Your task to perform on an android device: change the clock style Image 0: 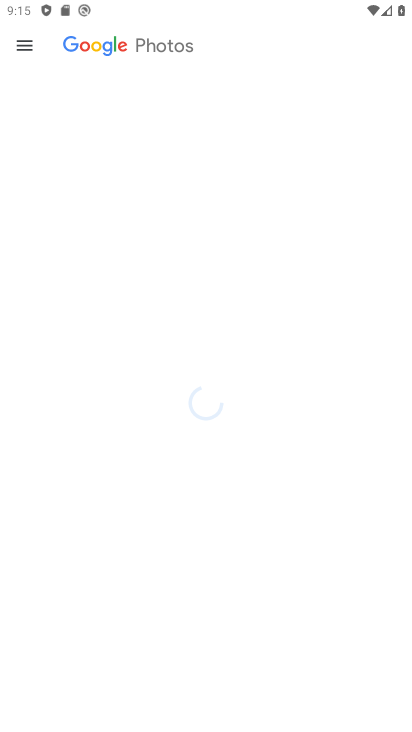
Step 0: press home button
Your task to perform on an android device: change the clock style Image 1: 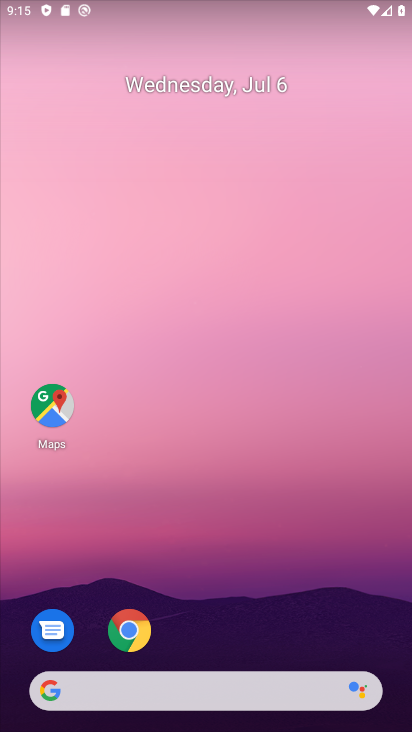
Step 1: drag from (195, 681) to (234, 286)
Your task to perform on an android device: change the clock style Image 2: 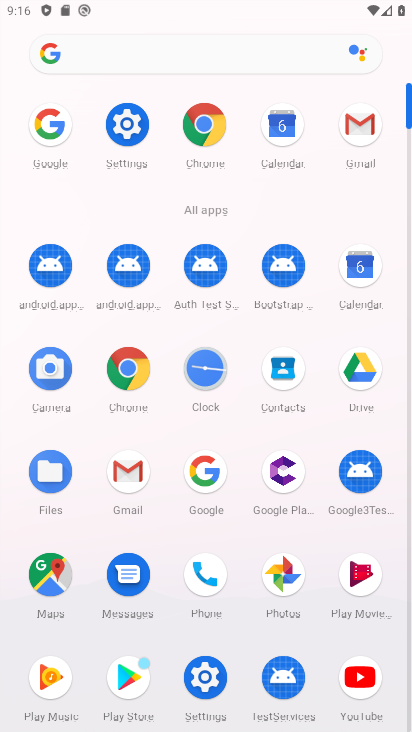
Step 2: click (184, 375)
Your task to perform on an android device: change the clock style Image 3: 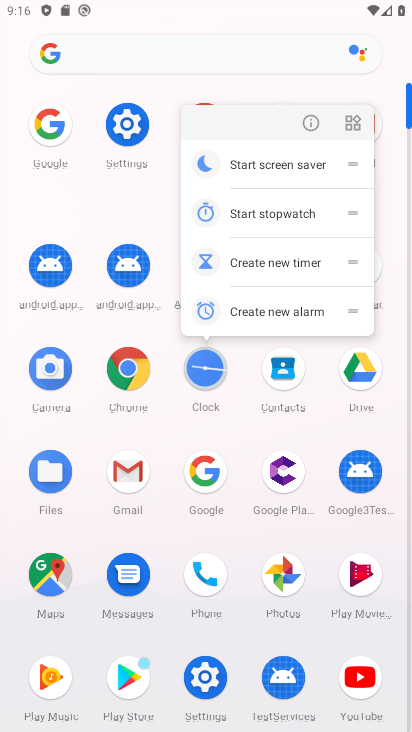
Step 3: click (194, 374)
Your task to perform on an android device: change the clock style Image 4: 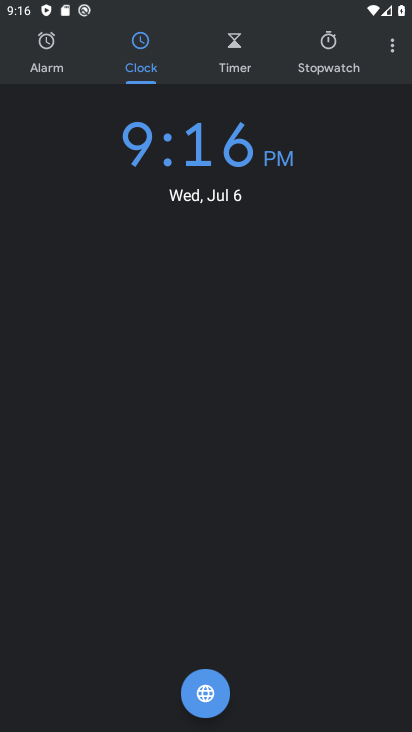
Step 4: click (399, 45)
Your task to perform on an android device: change the clock style Image 5: 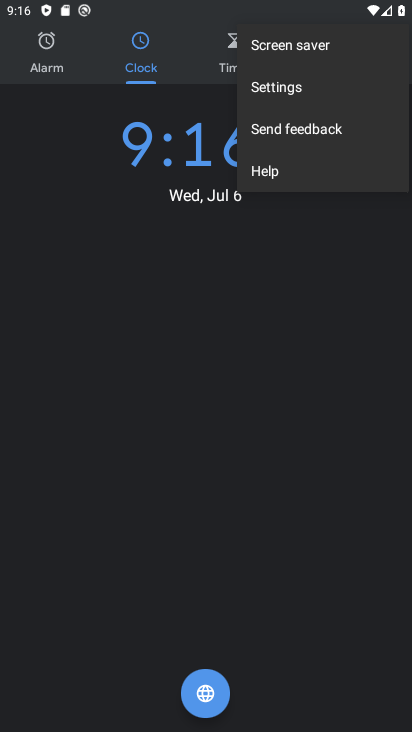
Step 5: click (304, 93)
Your task to perform on an android device: change the clock style Image 6: 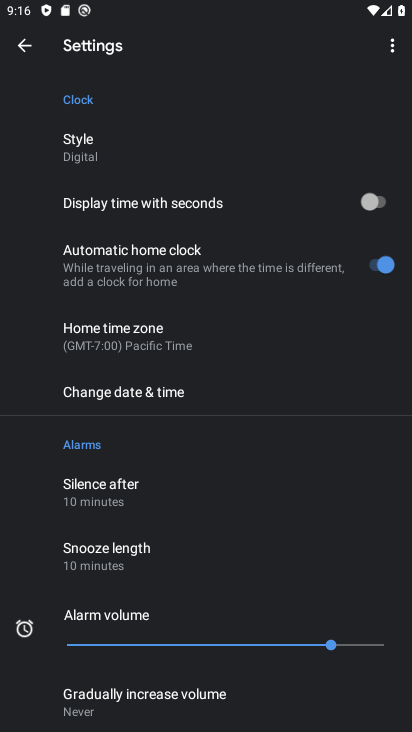
Step 6: click (99, 155)
Your task to perform on an android device: change the clock style Image 7: 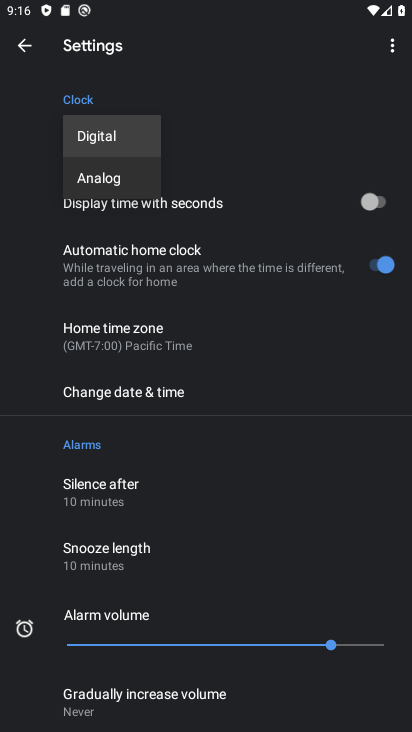
Step 7: click (111, 191)
Your task to perform on an android device: change the clock style Image 8: 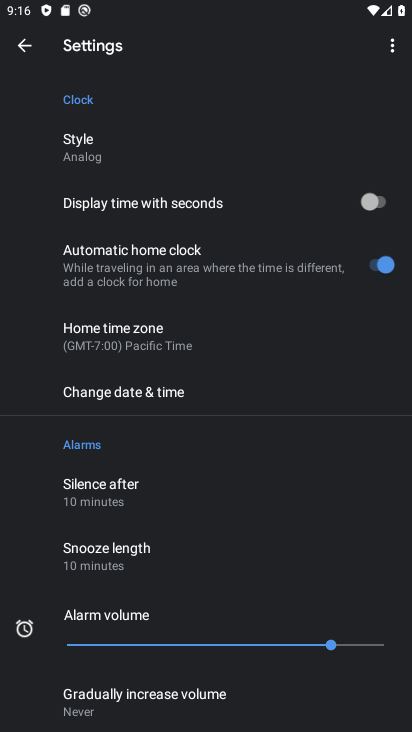
Step 8: task complete